Your task to perform on an android device: Open location settings Image 0: 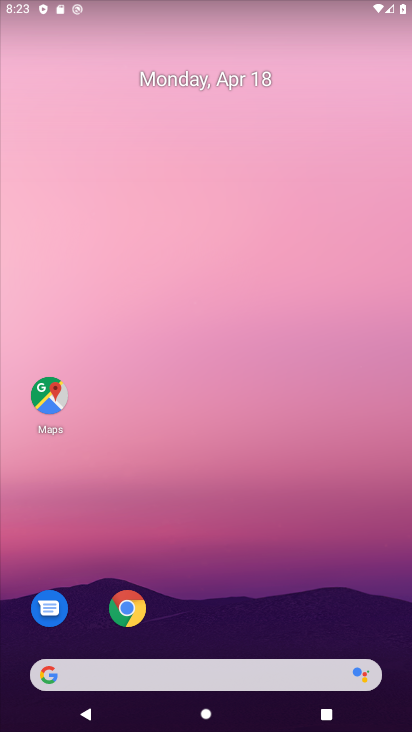
Step 0: drag from (212, 636) to (218, 37)
Your task to perform on an android device: Open location settings Image 1: 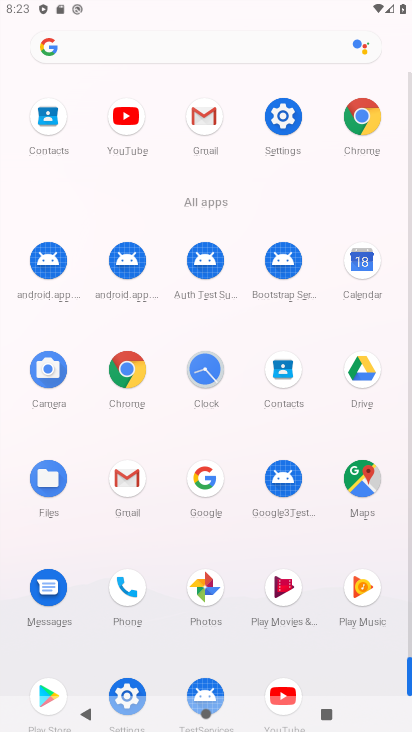
Step 1: click (279, 119)
Your task to perform on an android device: Open location settings Image 2: 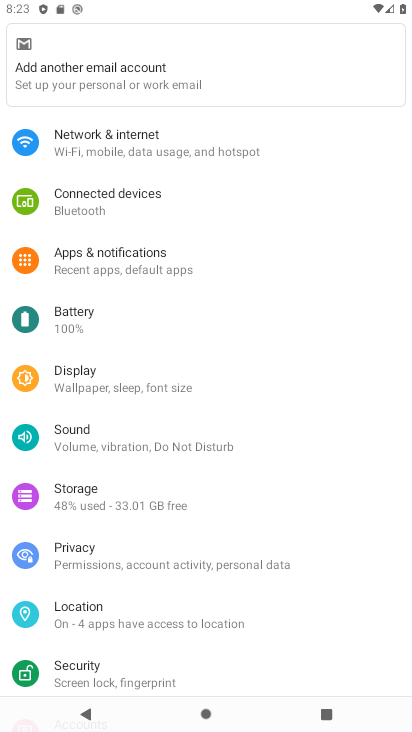
Step 2: click (125, 619)
Your task to perform on an android device: Open location settings Image 3: 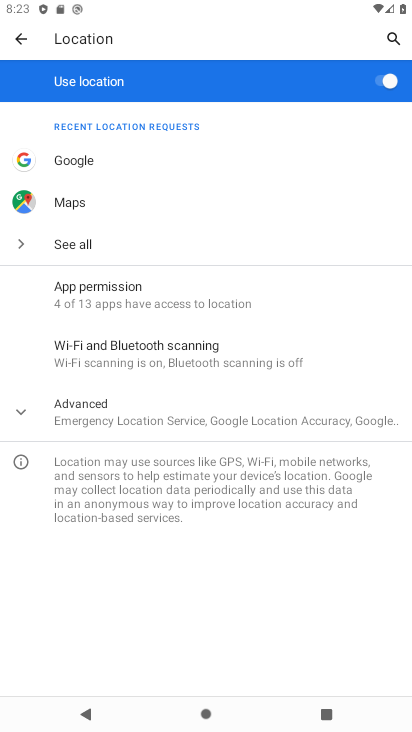
Step 3: task complete